Your task to perform on an android device: Open calendar and show me the second week of next month Image 0: 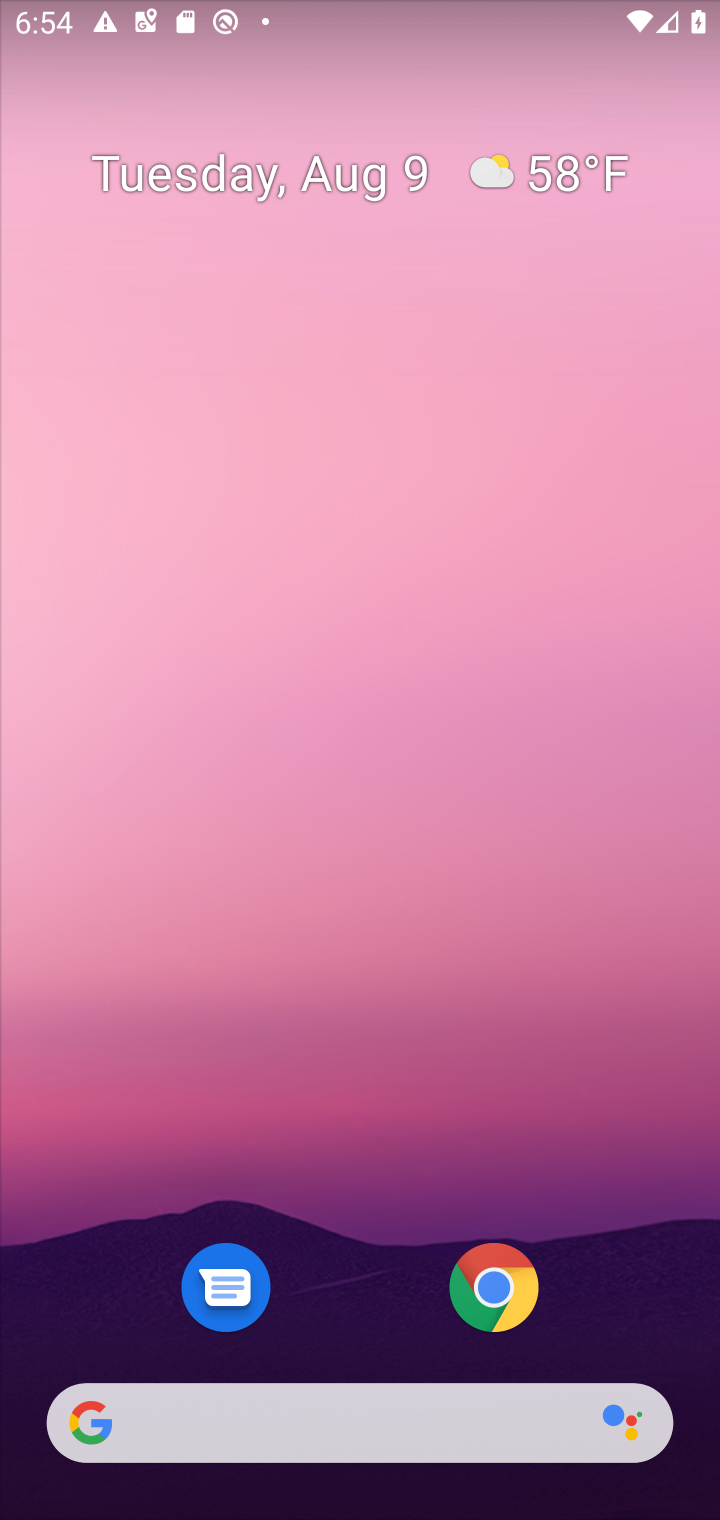
Step 0: drag from (386, 1045) to (568, 269)
Your task to perform on an android device: Open calendar and show me the second week of next month Image 1: 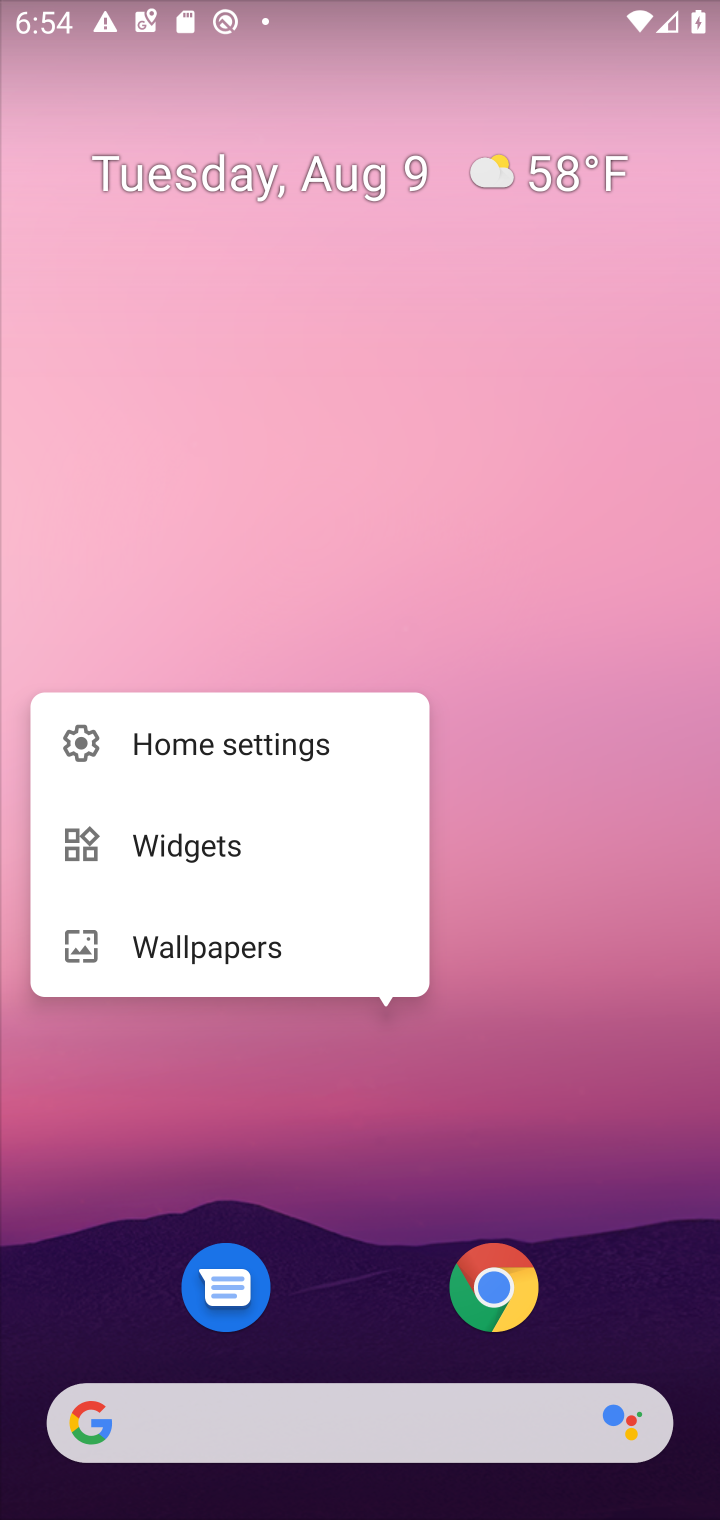
Step 1: click (592, 973)
Your task to perform on an android device: Open calendar and show me the second week of next month Image 2: 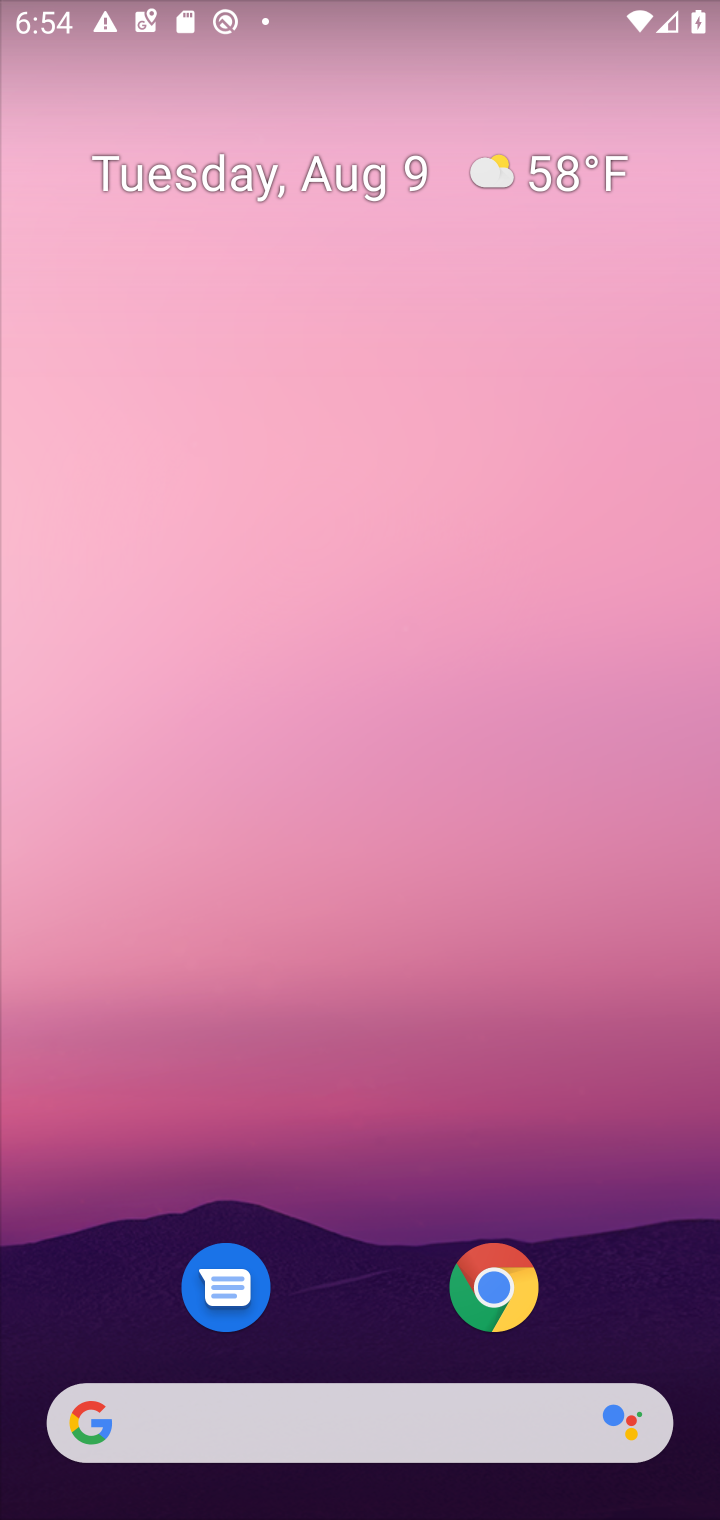
Step 2: task complete